Your task to perform on an android device: toggle airplane mode Image 0: 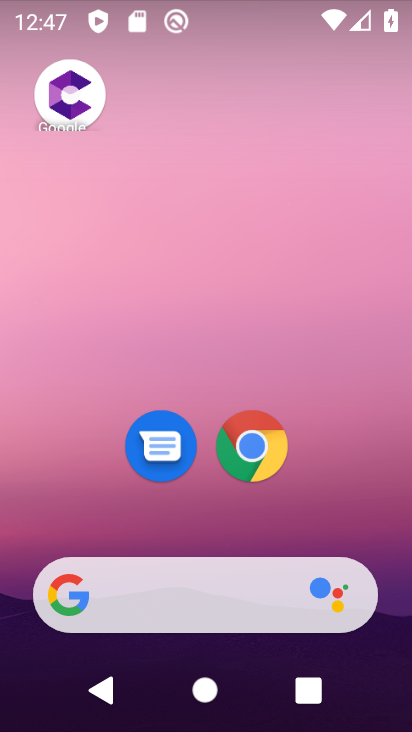
Step 0: drag from (236, 715) to (252, 95)
Your task to perform on an android device: toggle airplane mode Image 1: 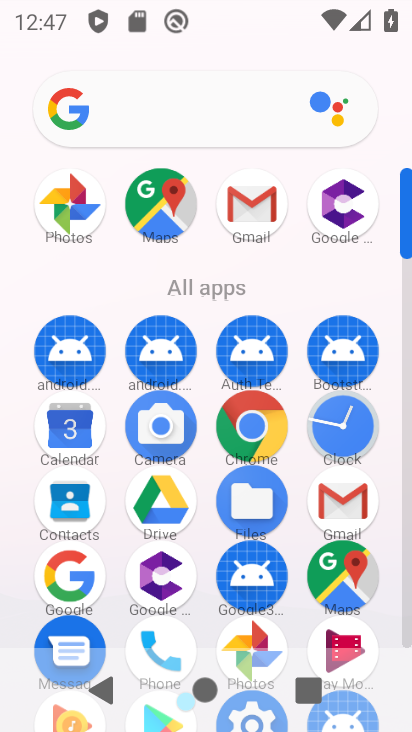
Step 1: drag from (181, 628) to (220, 169)
Your task to perform on an android device: toggle airplane mode Image 2: 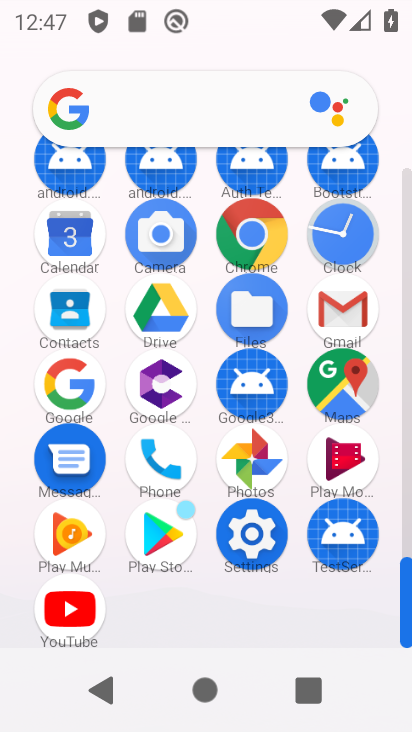
Step 2: click (244, 543)
Your task to perform on an android device: toggle airplane mode Image 3: 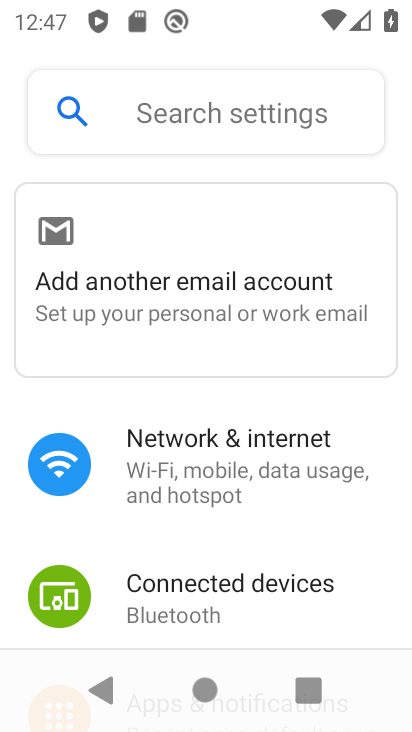
Step 3: click (233, 476)
Your task to perform on an android device: toggle airplane mode Image 4: 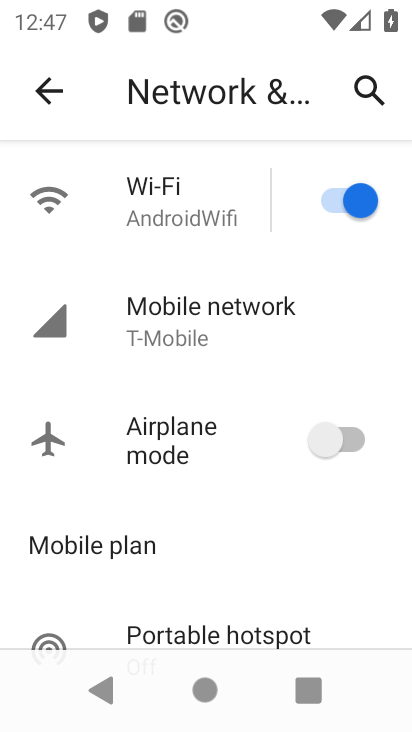
Step 4: click (332, 440)
Your task to perform on an android device: toggle airplane mode Image 5: 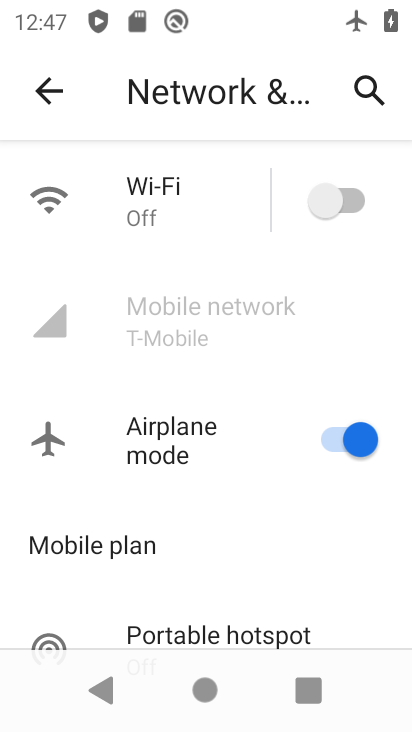
Step 5: task complete